Your task to perform on an android device: open app "Messages" (install if not already installed) Image 0: 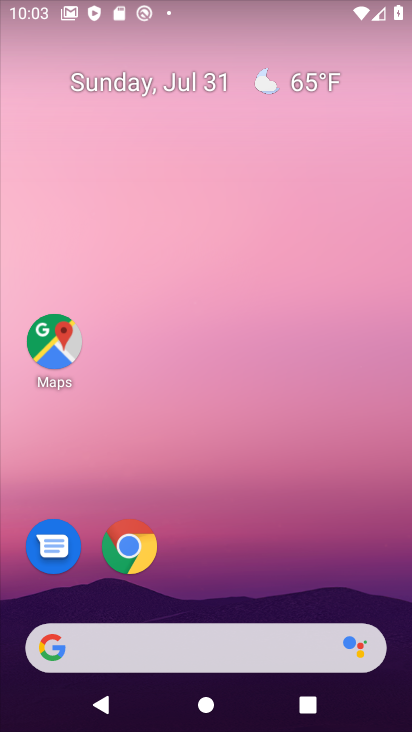
Step 0: drag from (223, 551) to (307, 108)
Your task to perform on an android device: open app "Messages" (install if not already installed) Image 1: 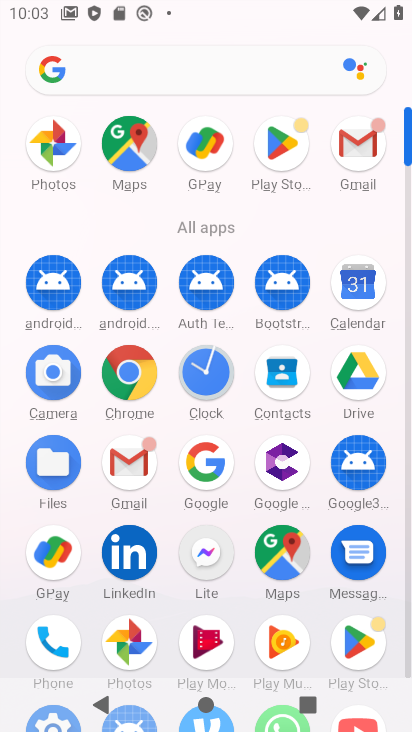
Step 1: click (351, 565)
Your task to perform on an android device: open app "Messages" (install if not already installed) Image 2: 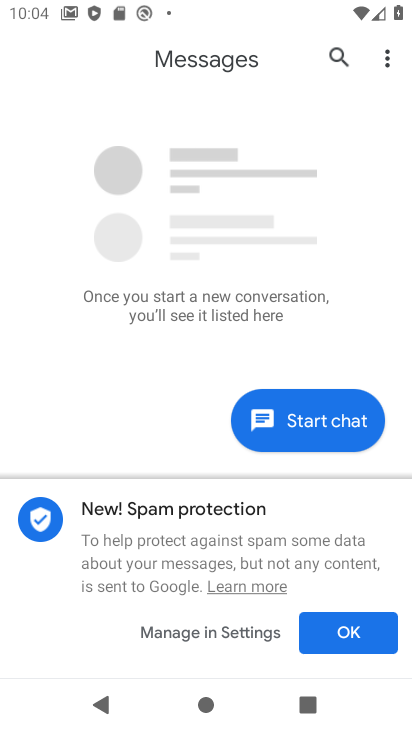
Step 2: task complete